Your task to perform on an android device: Set the phone to "Do not disturb". Image 0: 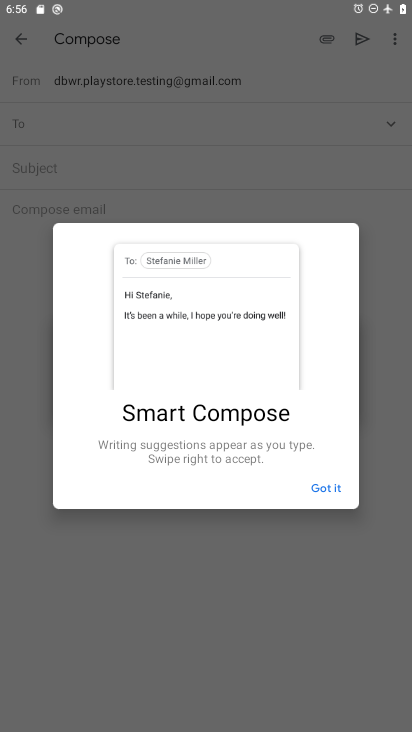
Step 0: press home button
Your task to perform on an android device: Set the phone to "Do not disturb". Image 1: 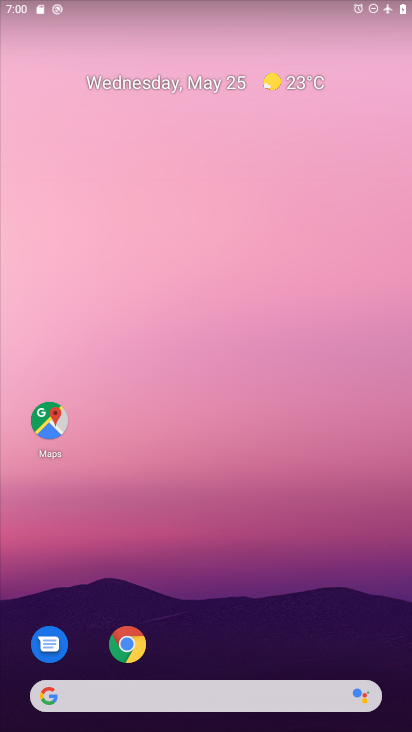
Step 1: task complete